Your task to perform on an android device: Open Google Image 0: 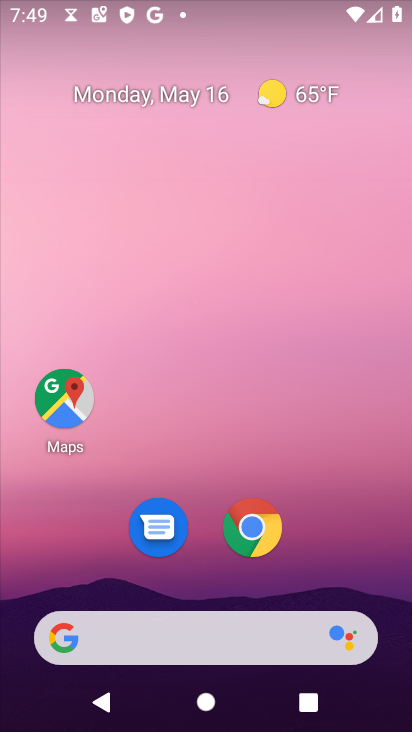
Step 0: drag from (347, 580) to (356, 265)
Your task to perform on an android device: Open Google Image 1: 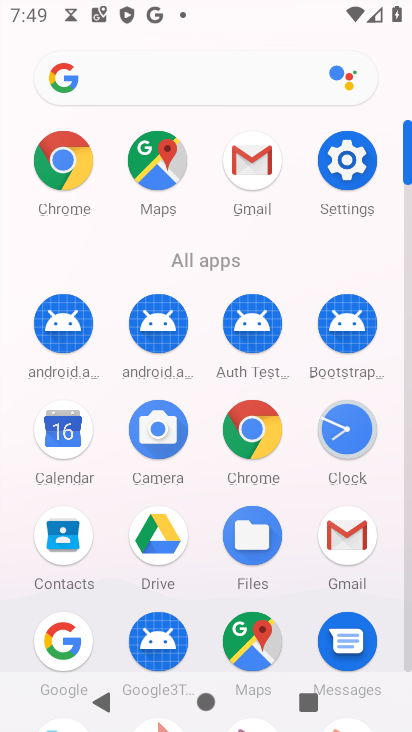
Step 1: drag from (209, 493) to (221, 378)
Your task to perform on an android device: Open Google Image 2: 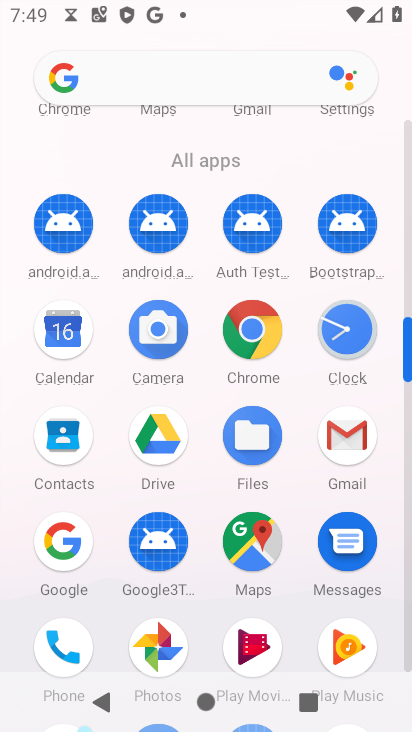
Step 2: click (67, 525)
Your task to perform on an android device: Open Google Image 3: 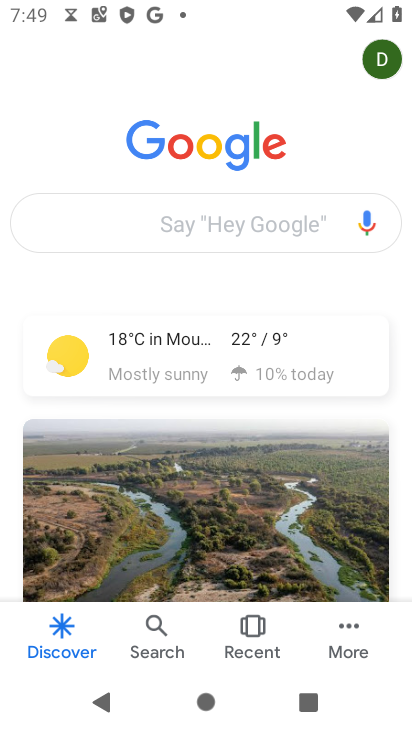
Step 3: task complete